Your task to perform on an android device: turn vacation reply on in the gmail app Image 0: 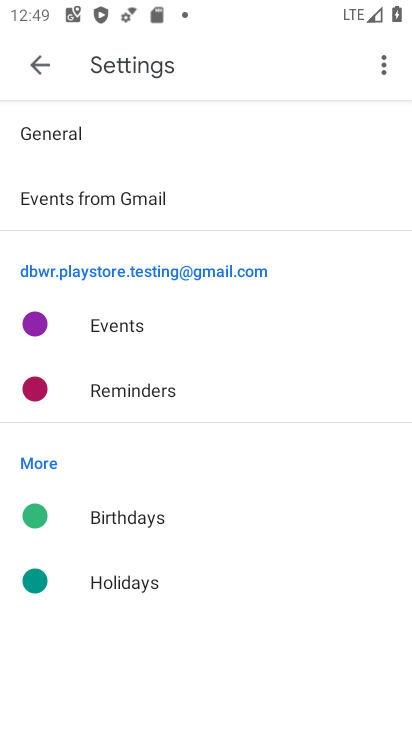
Step 0: press home button
Your task to perform on an android device: turn vacation reply on in the gmail app Image 1: 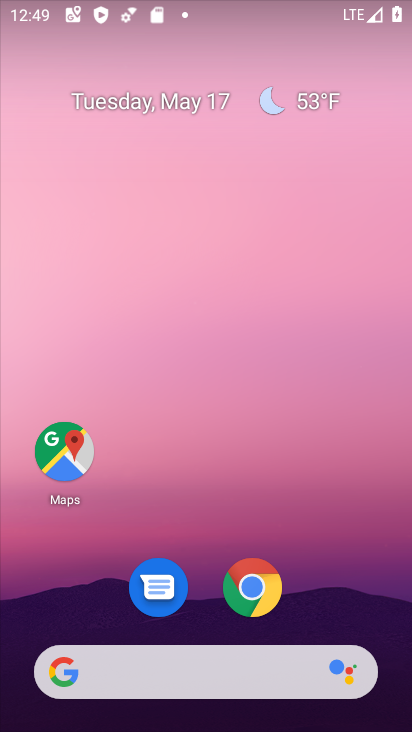
Step 1: drag from (184, 640) to (162, 112)
Your task to perform on an android device: turn vacation reply on in the gmail app Image 2: 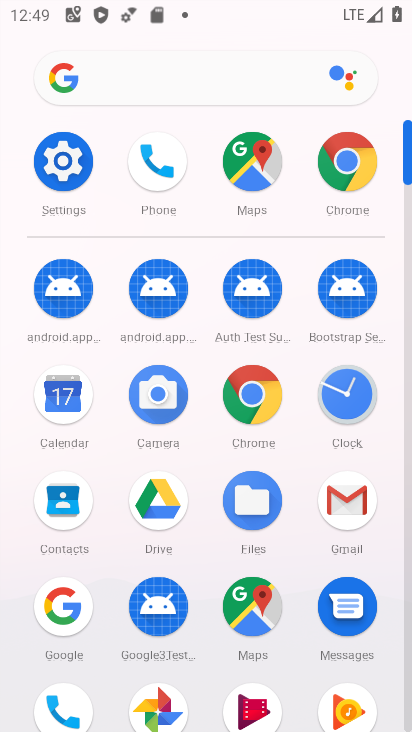
Step 2: drag from (217, 581) to (185, 137)
Your task to perform on an android device: turn vacation reply on in the gmail app Image 3: 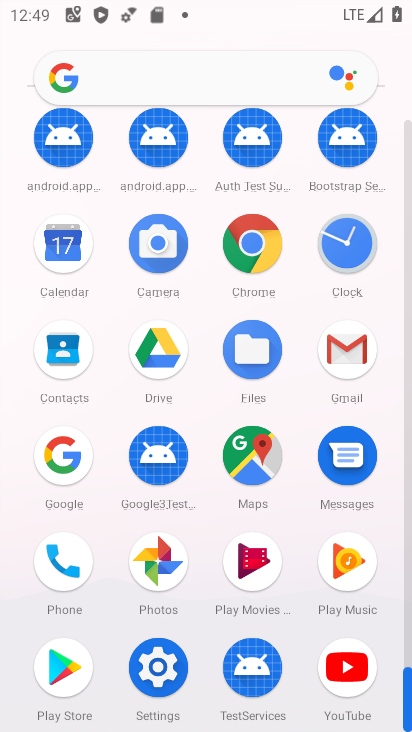
Step 3: click (348, 354)
Your task to perform on an android device: turn vacation reply on in the gmail app Image 4: 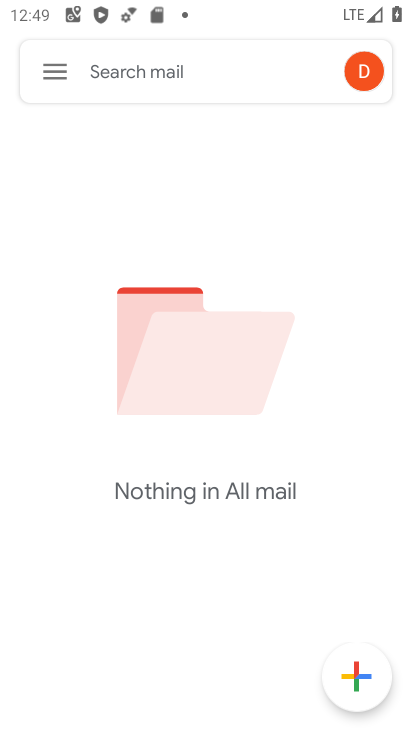
Step 4: click (52, 66)
Your task to perform on an android device: turn vacation reply on in the gmail app Image 5: 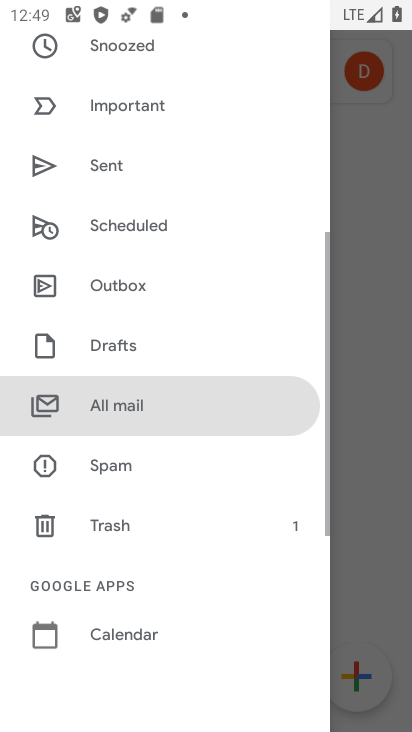
Step 5: drag from (197, 567) to (205, 183)
Your task to perform on an android device: turn vacation reply on in the gmail app Image 6: 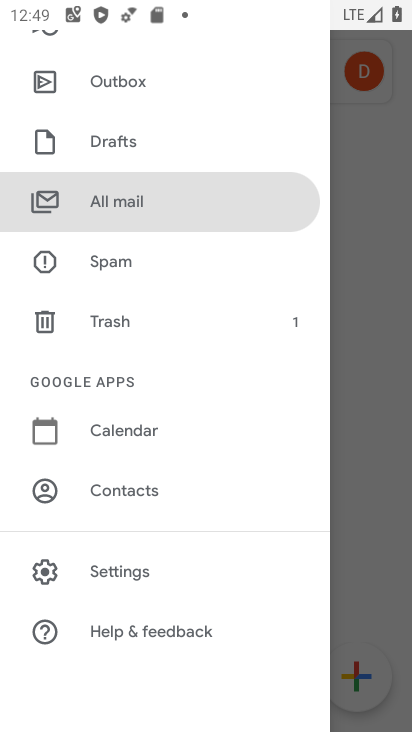
Step 6: click (107, 573)
Your task to perform on an android device: turn vacation reply on in the gmail app Image 7: 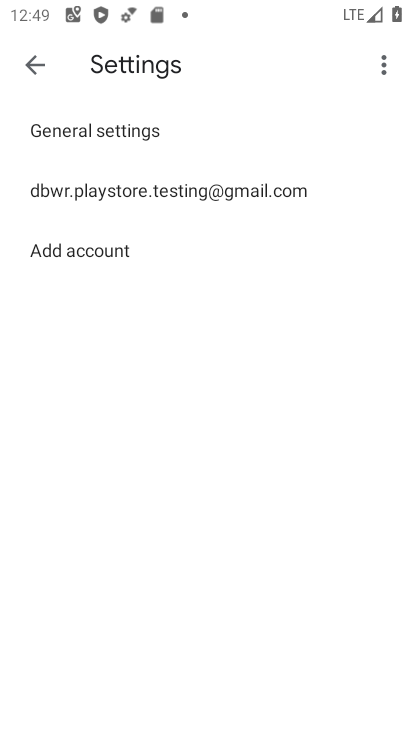
Step 7: click (66, 188)
Your task to perform on an android device: turn vacation reply on in the gmail app Image 8: 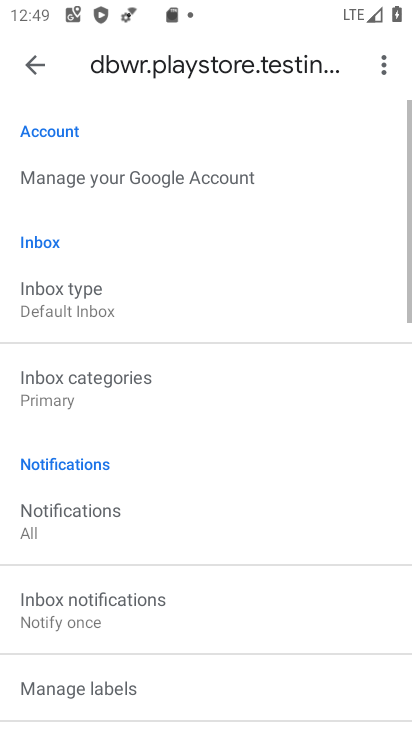
Step 8: drag from (133, 547) to (115, 75)
Your task to perform on an android device: turn vacation reply on in the gmail app Image 9: 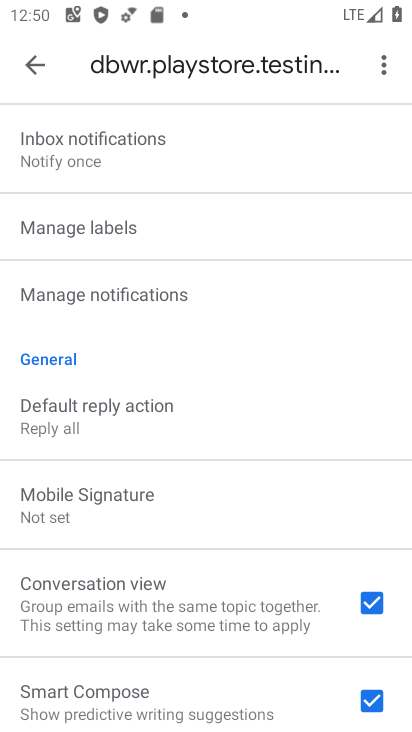
Step 9: drag from (137, 434) to (126, 197)
Your task to perform on an android device: turn vacation reply on in the gmail app Image 10: 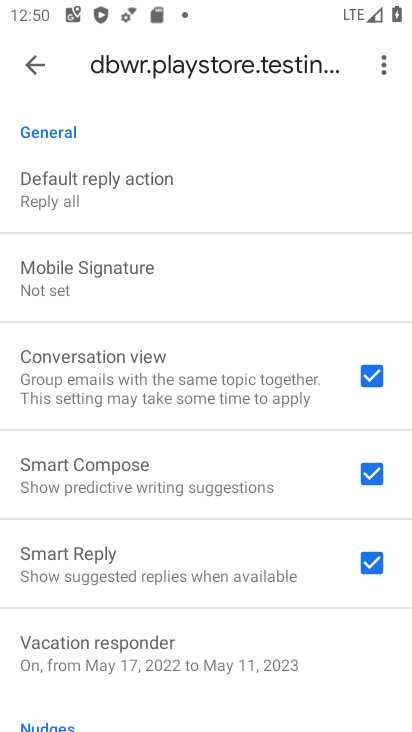
Step 10: click (146, 637)
Your task to perform on an android device: turn vacation reply on in the gmail app Image 11: 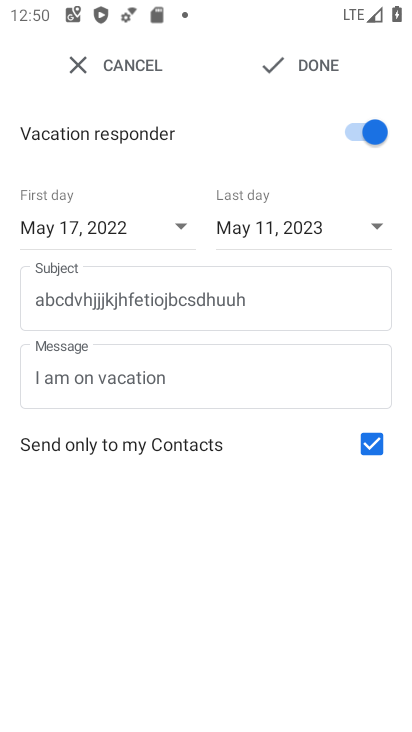
Step 11: click (286, 59)
Your task to perform on an android device: turn vacation reply on in the gmail app Image 12: 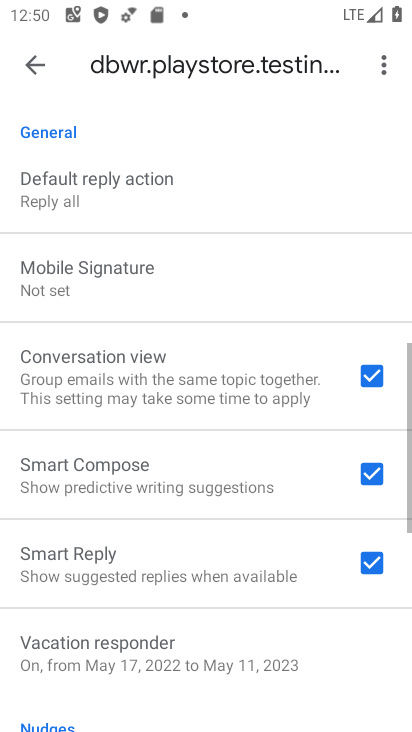
Step 12: task complete